Your task to perform on an android device: Show me recent news Image 0: 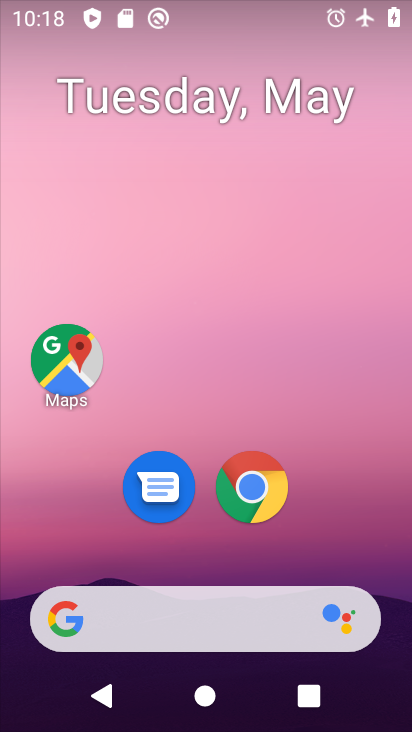
Step 0: drag from (205, 555) to (201, 260)
Your task to perform on an android device: Show me recent news Image 1: 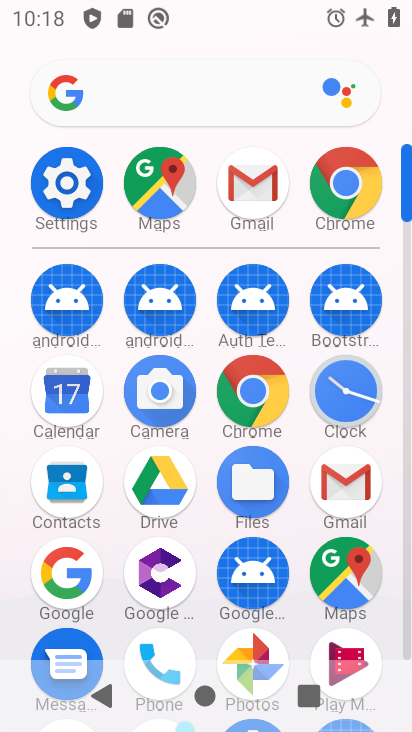
Step 1: click (157, 89)
Your task to perform on an android device: Show me recent news Image 2: 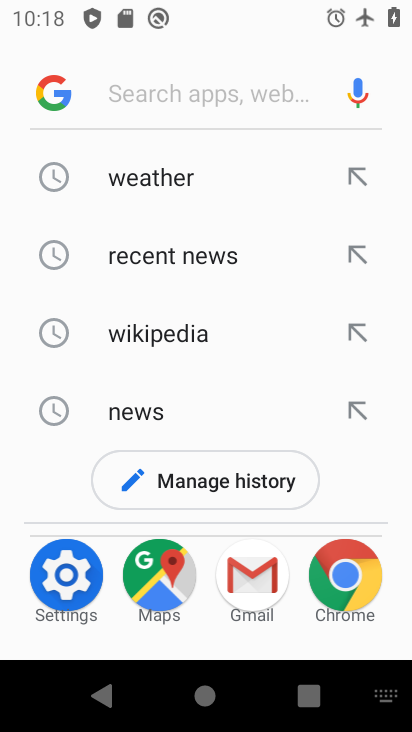
Step 2: click (189, 254)
Your task to perform on an android device: Show me recent news Image 3: 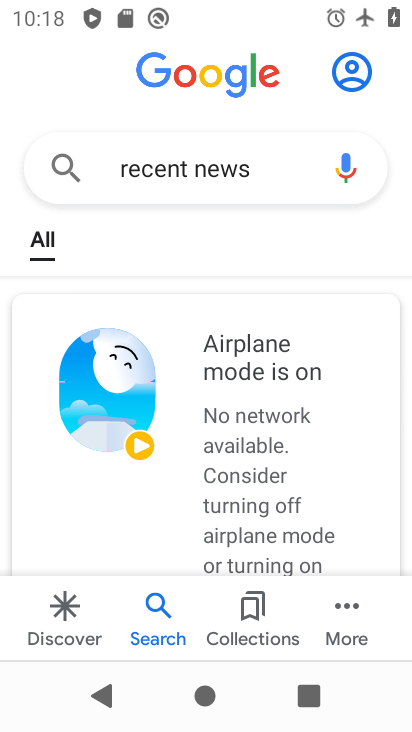
Step 3: task complete